Your task to perform on an android device: change the clock display to analog Image 0: 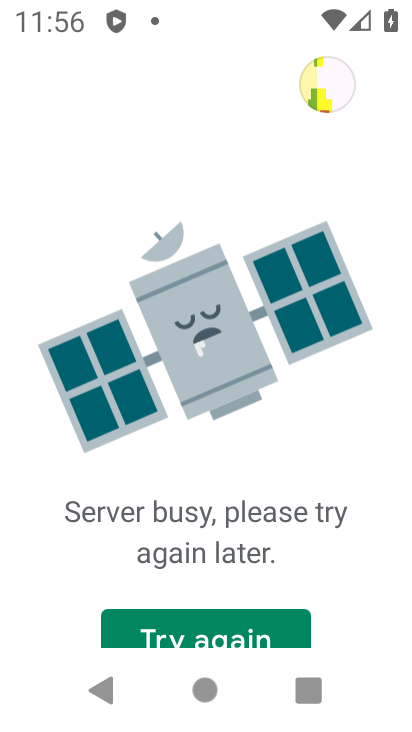
Step 0: press back button
Your task to perform on an android device: change the clock display to analog Image 1: 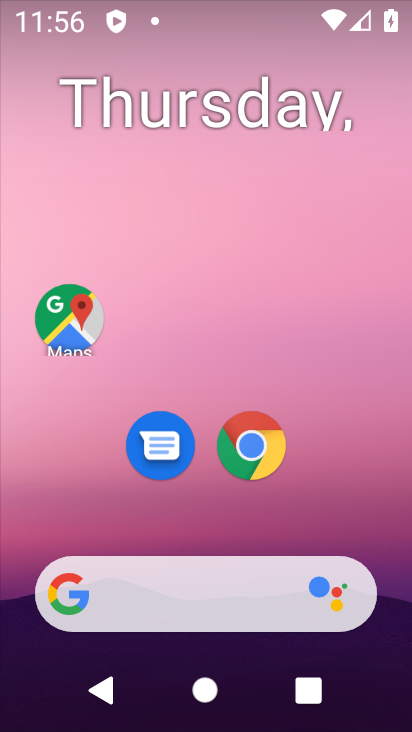
Step 1: drag from (145, 565) to (226, 64)
Your task to perform on an android device: change the clock display to analog Image 2: 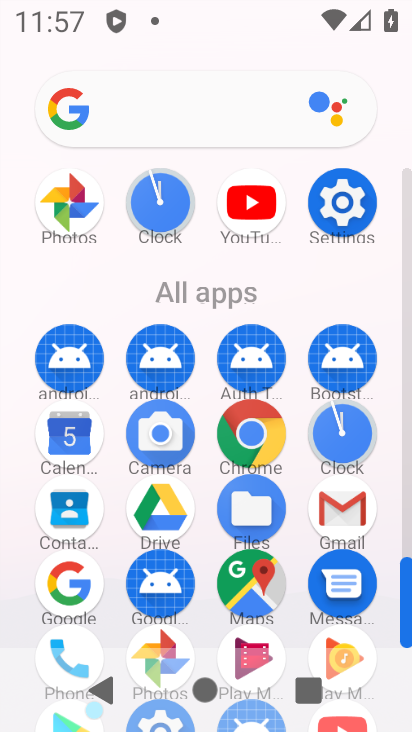
Step 2: click (340, 441)
Your task to perform on an android device: change the clock display to analog Image 3: 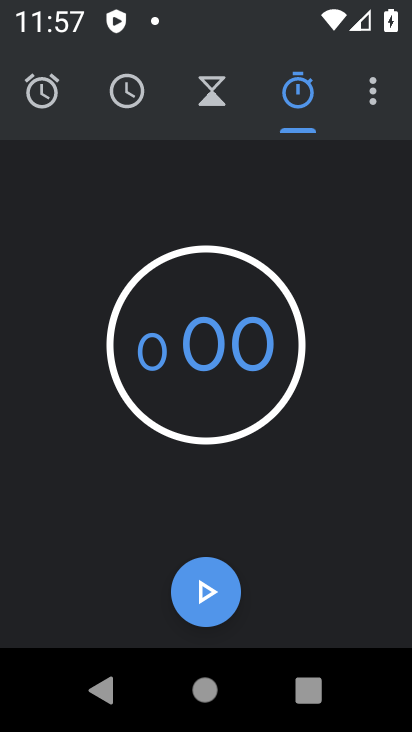
Step 3: click (373, 116)
Your task to perform on an android device: change the clock display to analog Image 4: 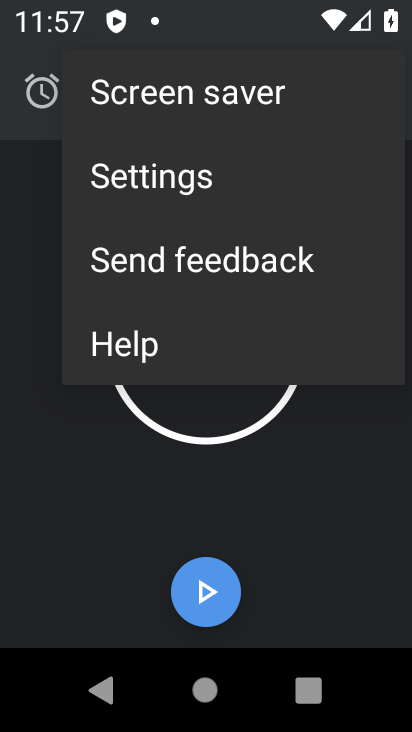
Step 4: click (315, 179)
Your task to perform on an android device: change the clock display to analog Image 5: 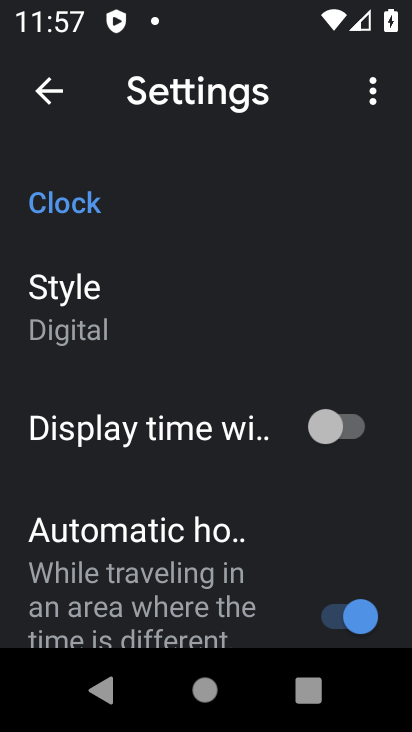
Step 5: click (135, 322)
Your task to perform on an android device: change the clock display to analog Image 6: 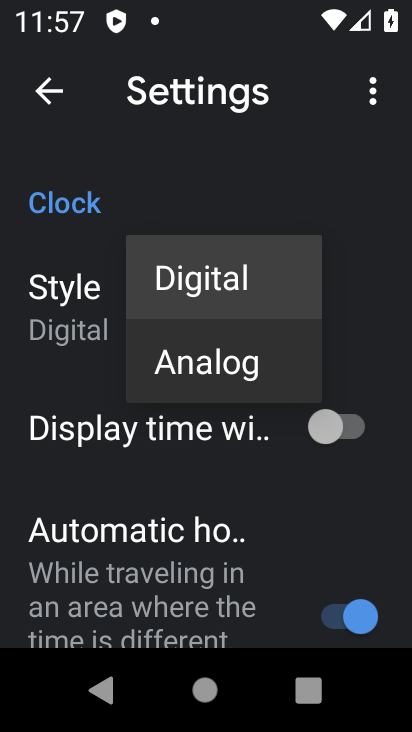
Step 6: click (172, 366)
Your task to perform on an android device: change the clock display to analog Image 7: 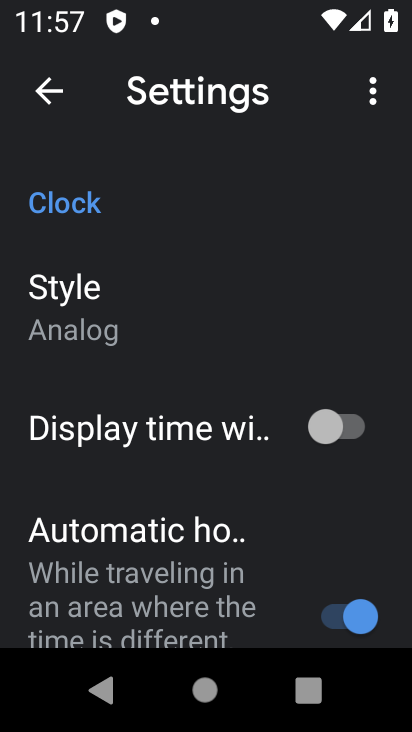
Step 7: task complete